Your task to perform on an android device: Open the web browser Image 0: 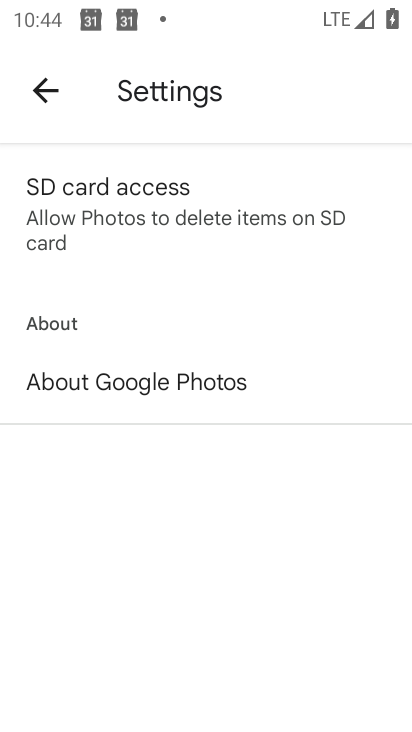
Step 0: press home button
Your task to perform on an android device: Open the web browser Image 1: 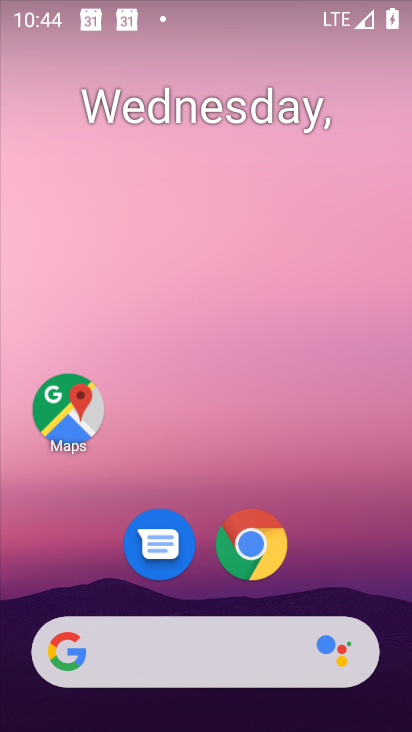
Step 1: click (257, 554)
Your task to perform on an android device: Open the web browser Image 2: 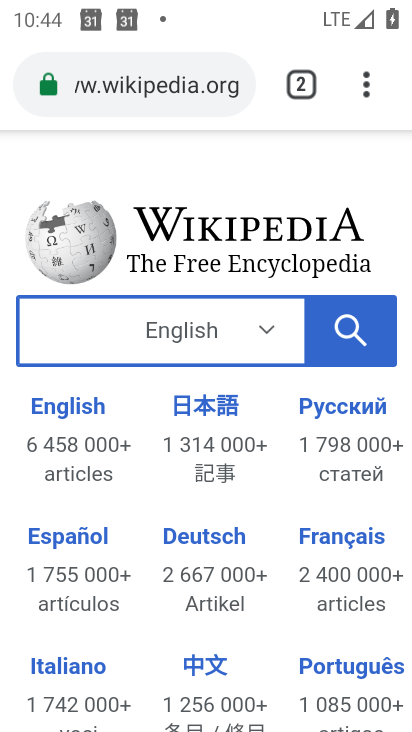
Step 2: task complete